Your task to perform on an android device: Google the capital of Venezuela Image 0: 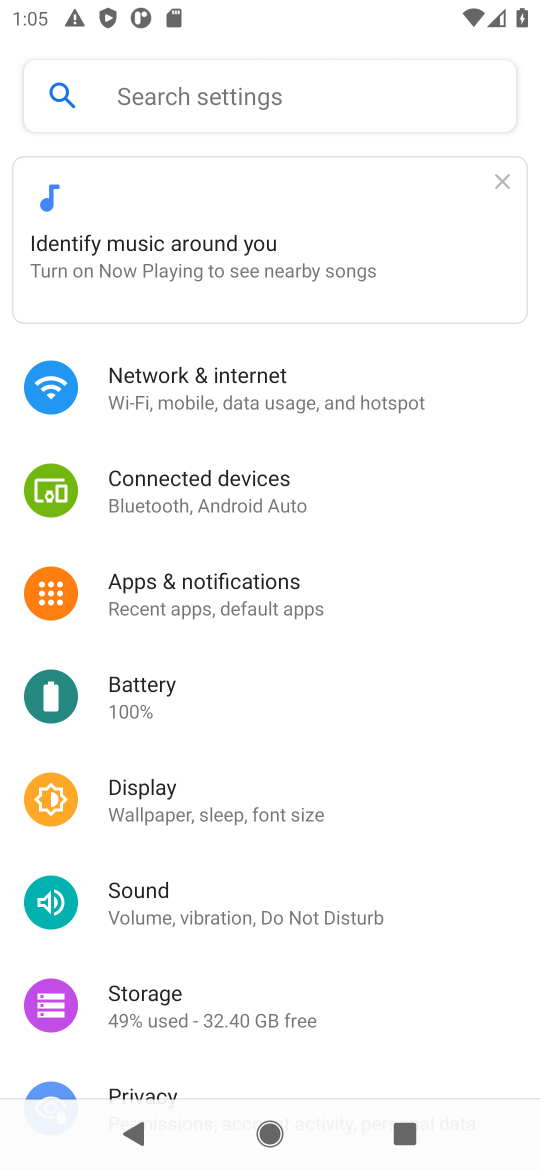
Step 0: press home button
Your task to perform on an android device: Google the capital of Venezuela Image 1: 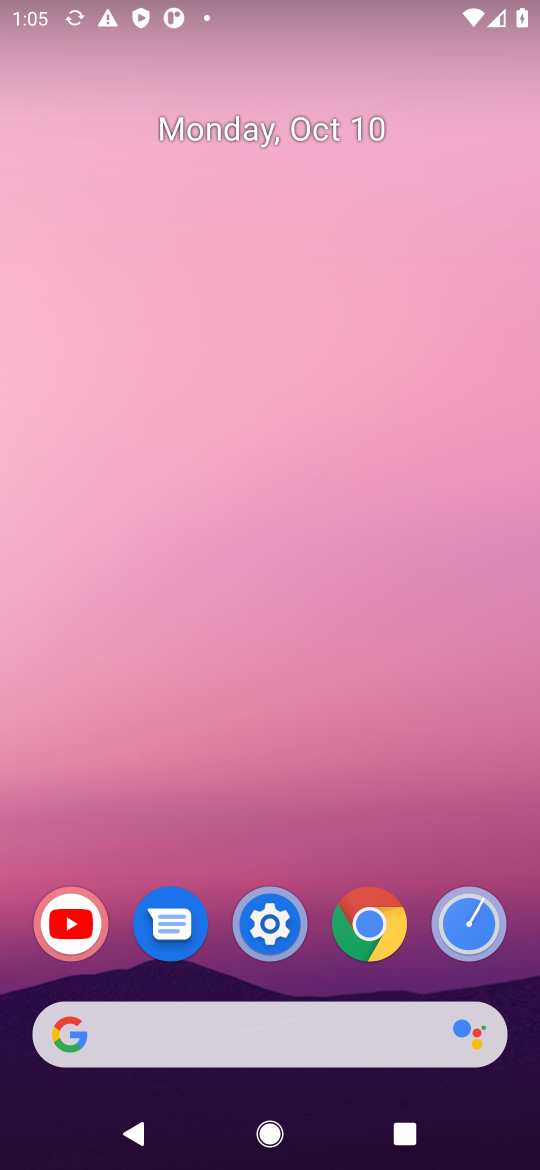
Step 1: drag from (291, 1004) to (284, 138)
Your task to perform on an android device: Google the capital of Venezuela Image 2: 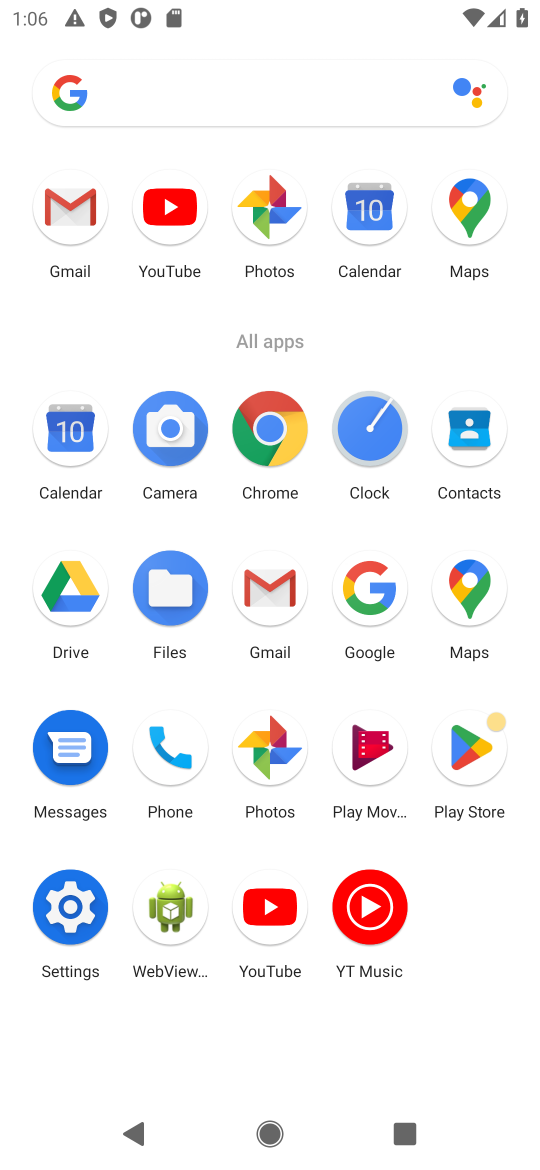
Step 2: click (361, 597)
Your task to perform on an android device: Google the capital of Venezuela Image 3: 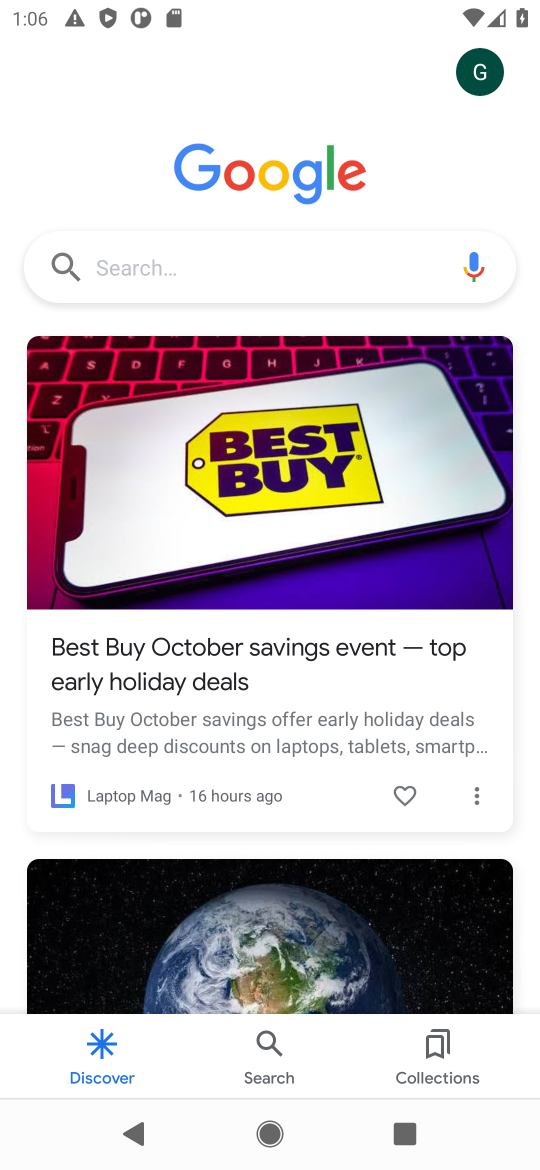
Step 3: click (210, 271)
Your task to perform on an android device: Google the capital of Venezuela Image 4: 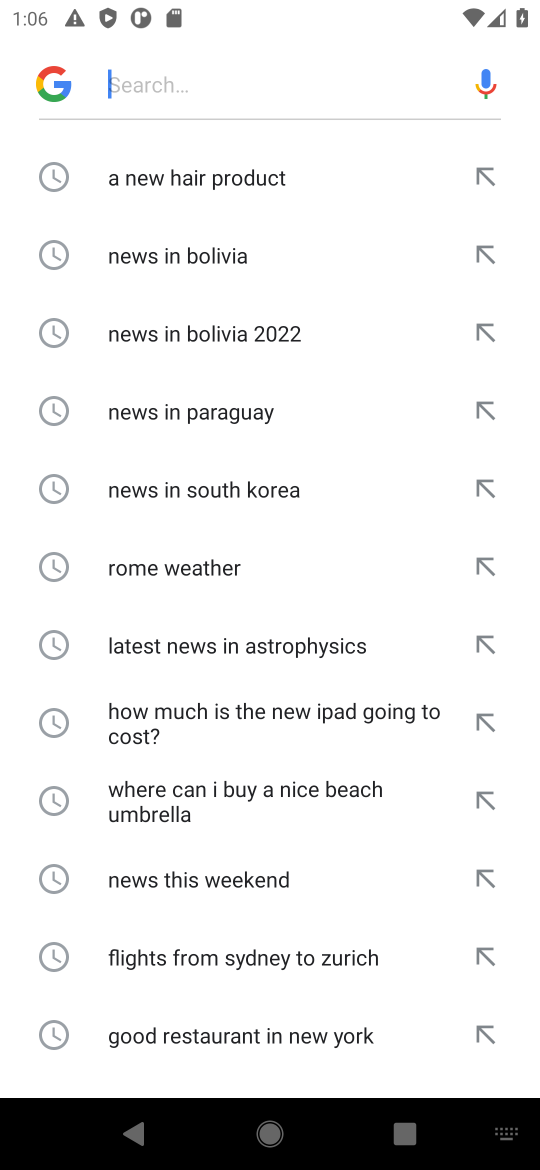
Step 4: type " capital of Venezuela"
Your task to perform on an android device: Google the capital of Venezuela Image 5: 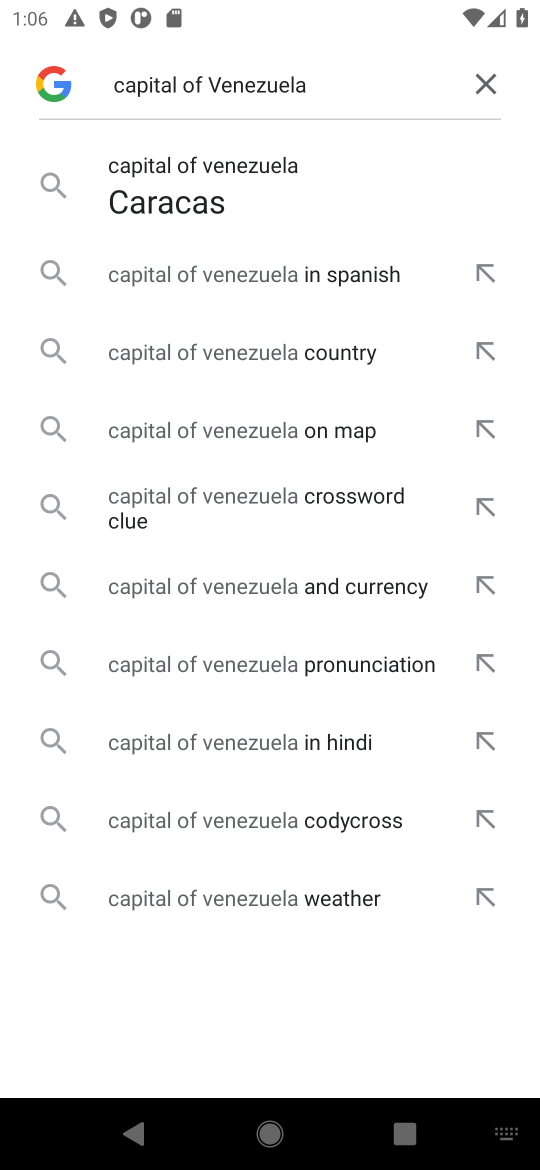
Step 5: type ""
Your task to perform on an android device: Google the capital of Venezuela Image 6: 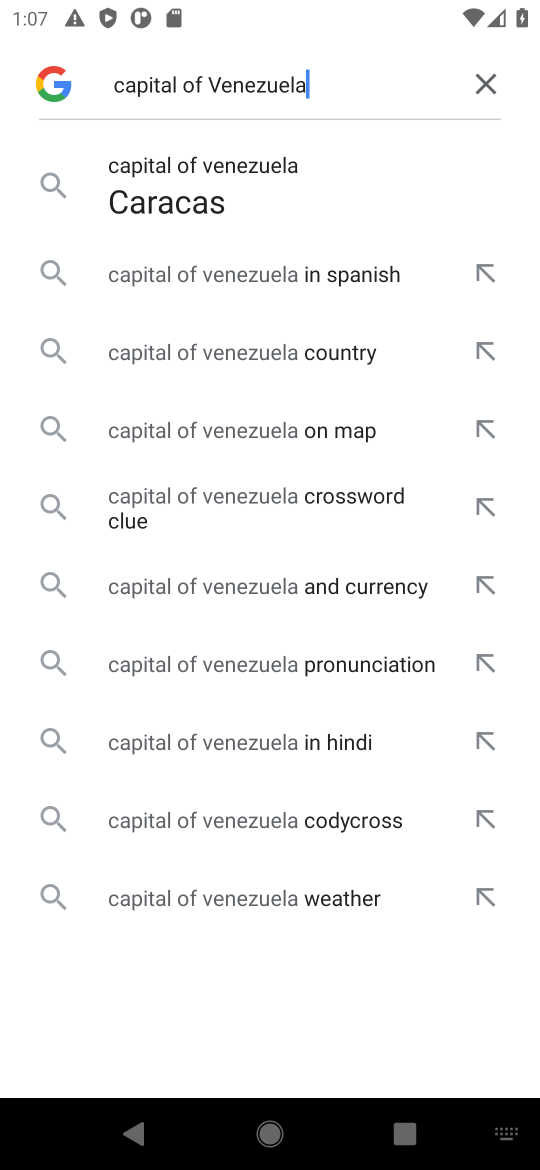
Step 6: click (192, 163)
Your task to perform on an android device: Google the capital of Venezuela Image 7: 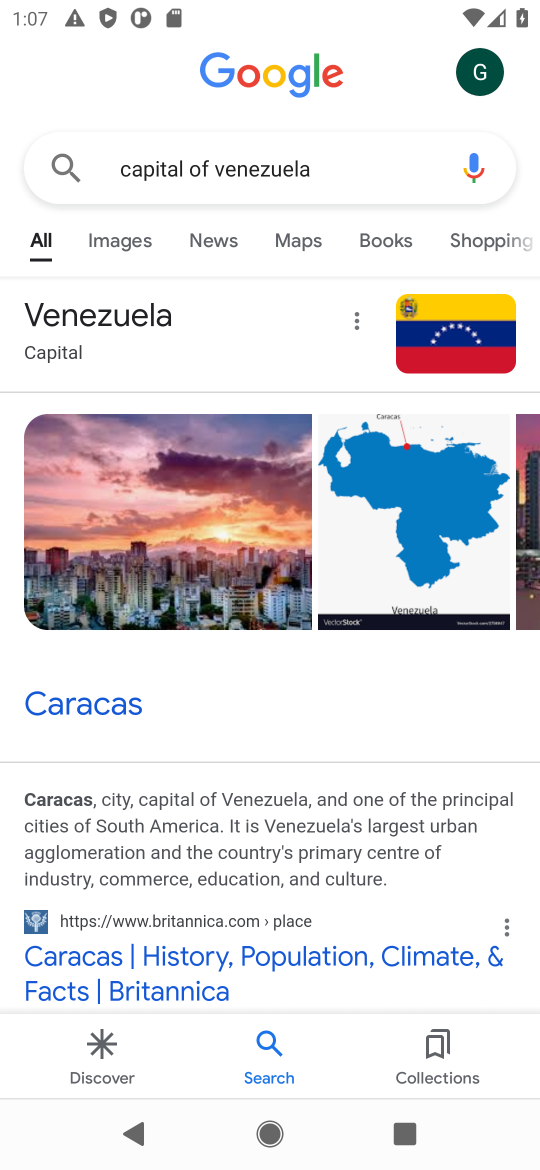
Step 7: task complete